Your task to perform on an android device: Go to Yahoo.com Image 0: 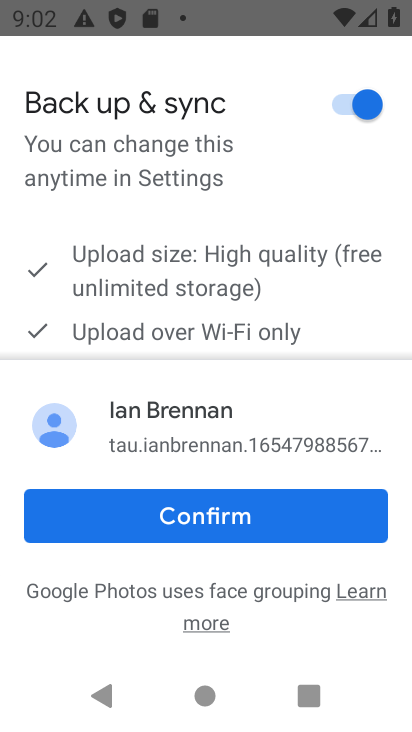
Step 0: press home button
Your task to perform on an android device: Go to Yahoo.com Image 1: 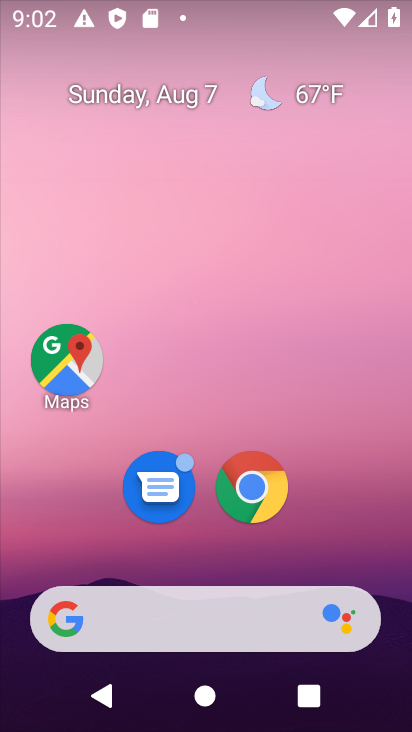
Step 1: click (258, 481)
Your task to perform on an android device: Go to Yahoo.com Image 2: 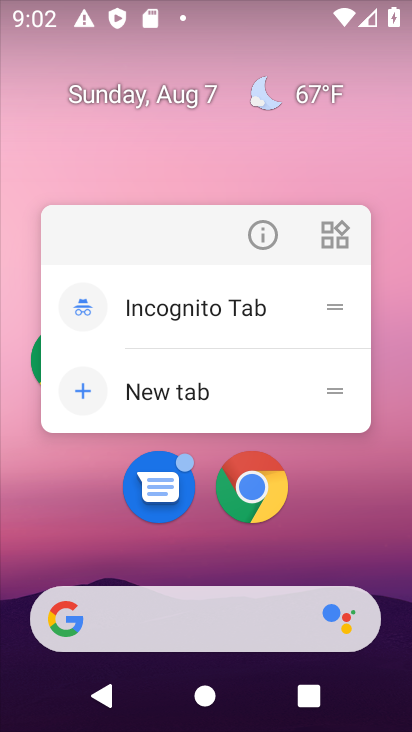
Step 2: click (252, 474)
Your task to perform on an android device: Go to Yahoo.com Image 3: 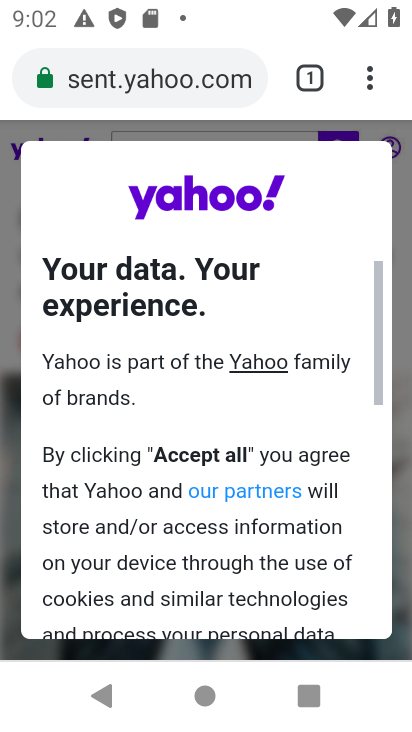
Step 3: task complete